Your task to perform on an android device: What is the recent news? Image 0: 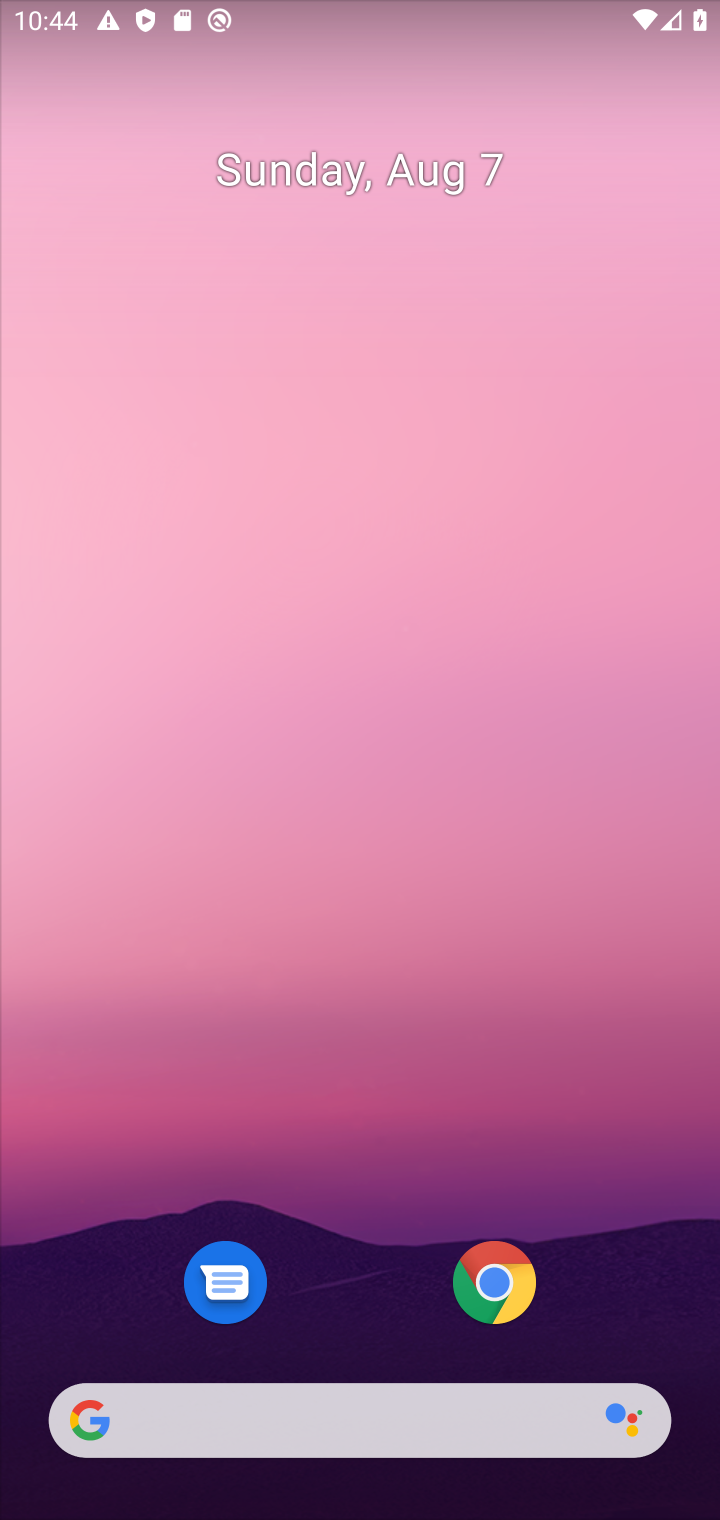
Step 0: drag from (432, 1276) to (219, 448)
Your task to perform on an android device: What is the recent news? Image 1: 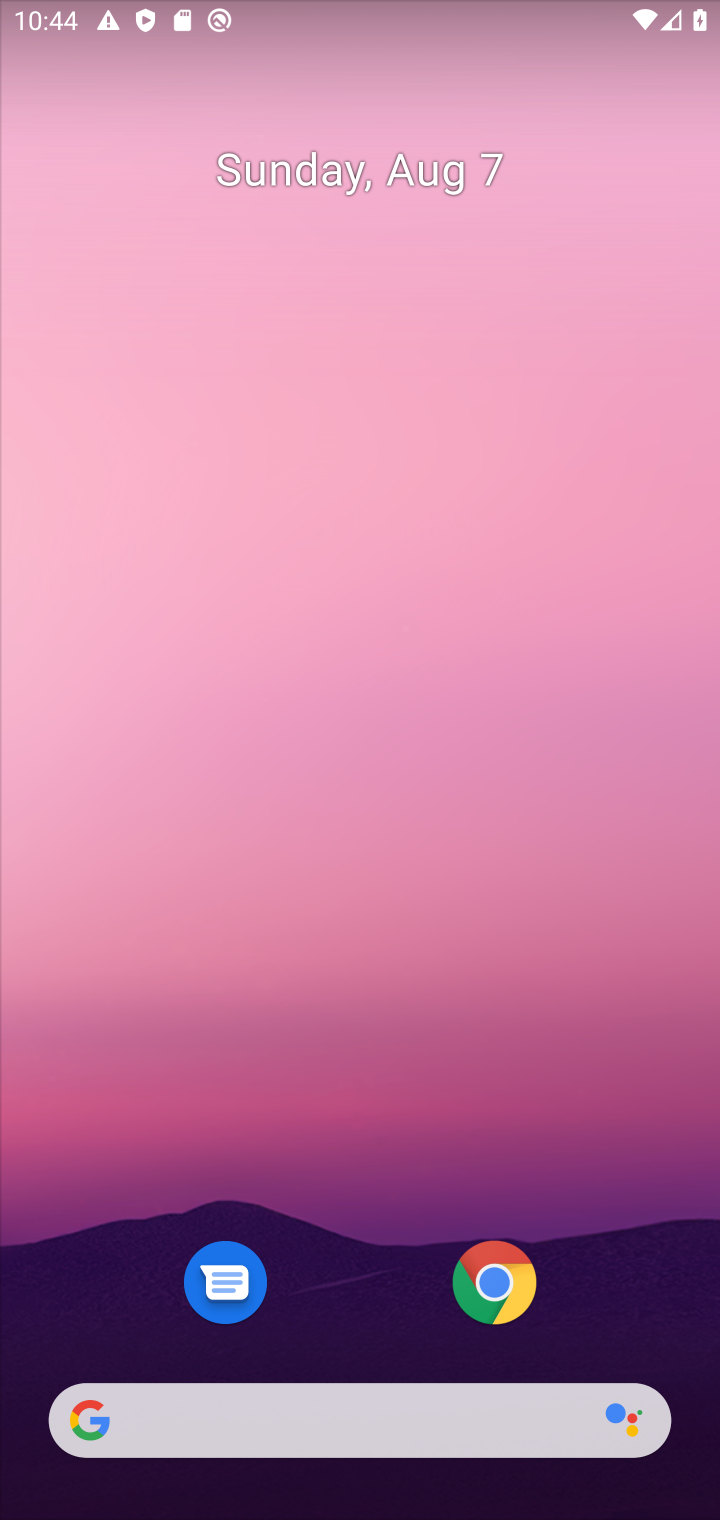
Step 1: drag from (285, 609) to (301, 878)
Your task to perform on an android device: What is the recent news? Image 2: 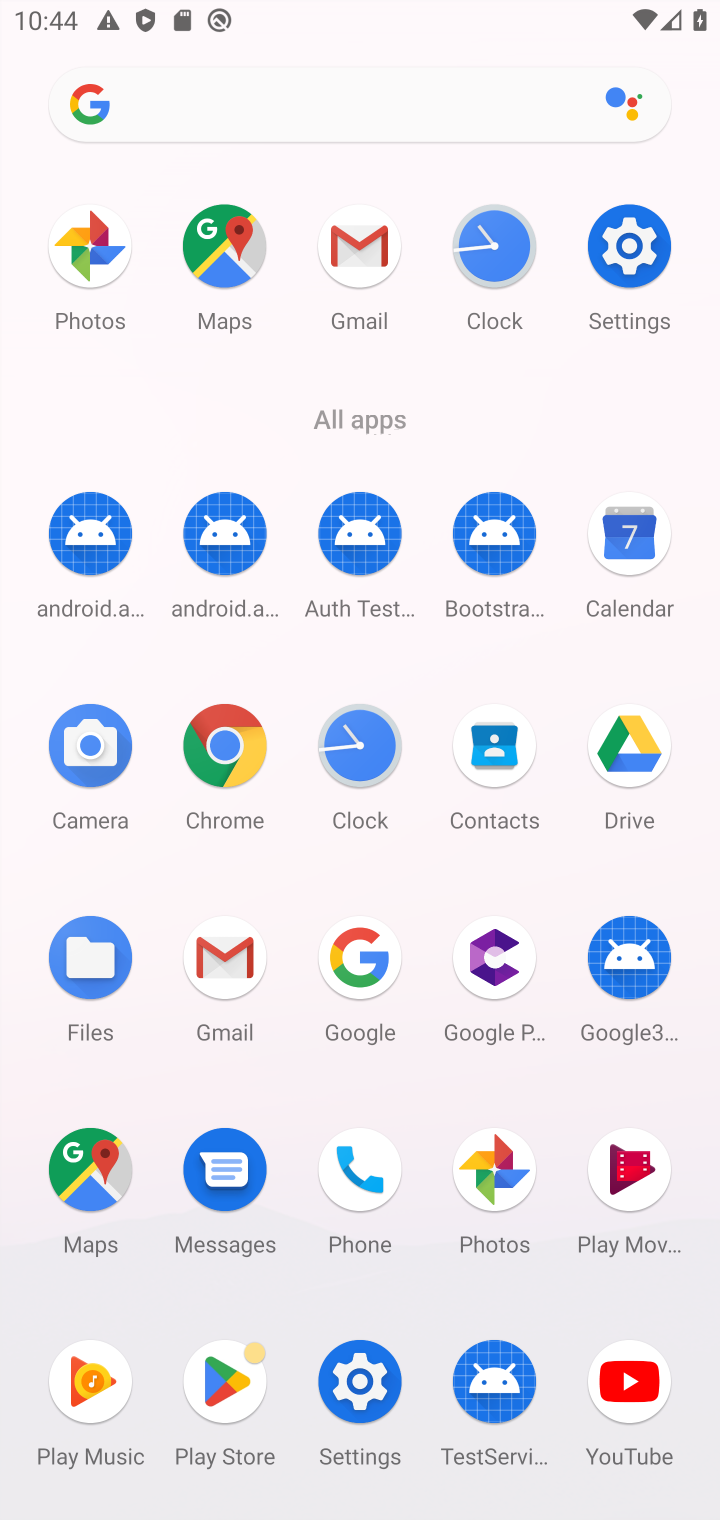
Step 2: click (244, 1090)
Your task to perform on an android device: What is the recent news? Image 3: 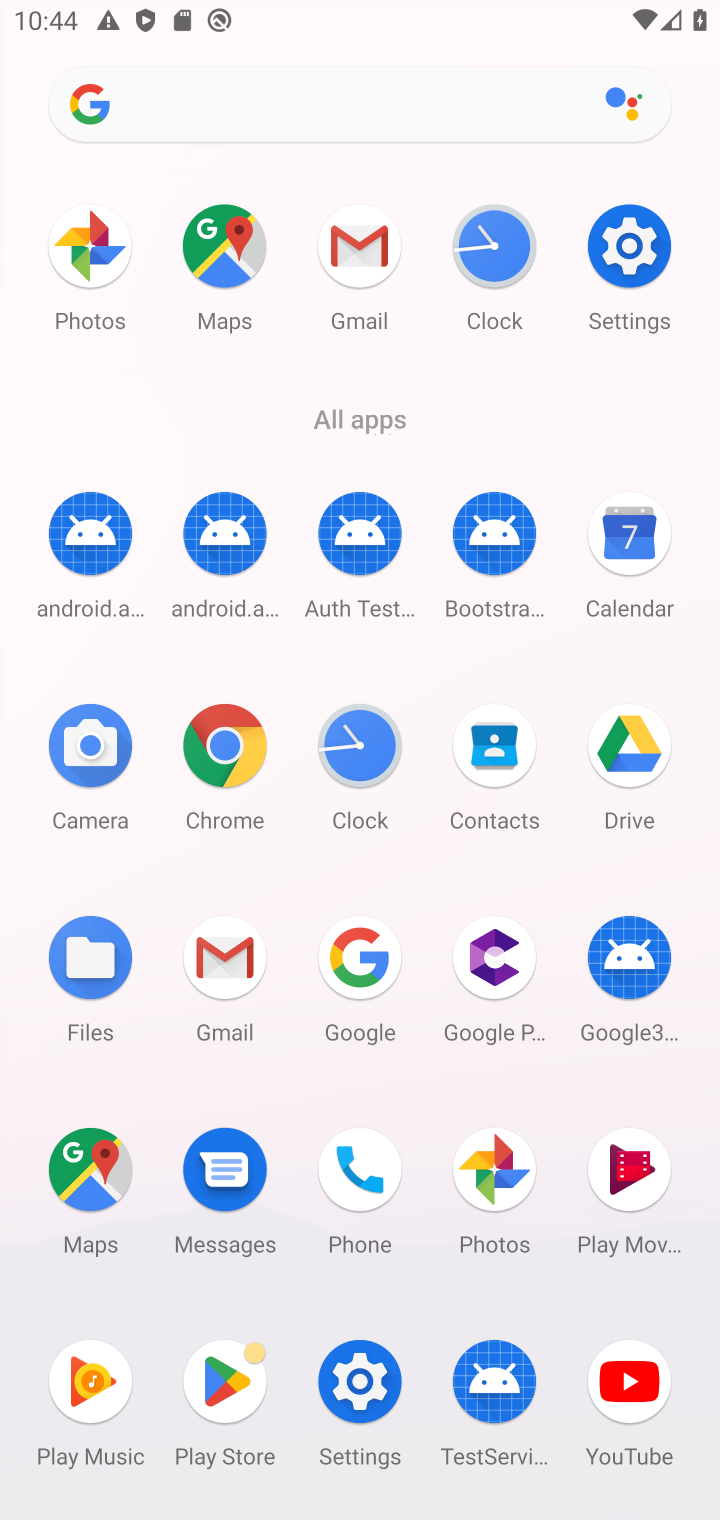
Step 3: click (243, 793)
Your task to perform on an android device: What is the recent news? Image 4: 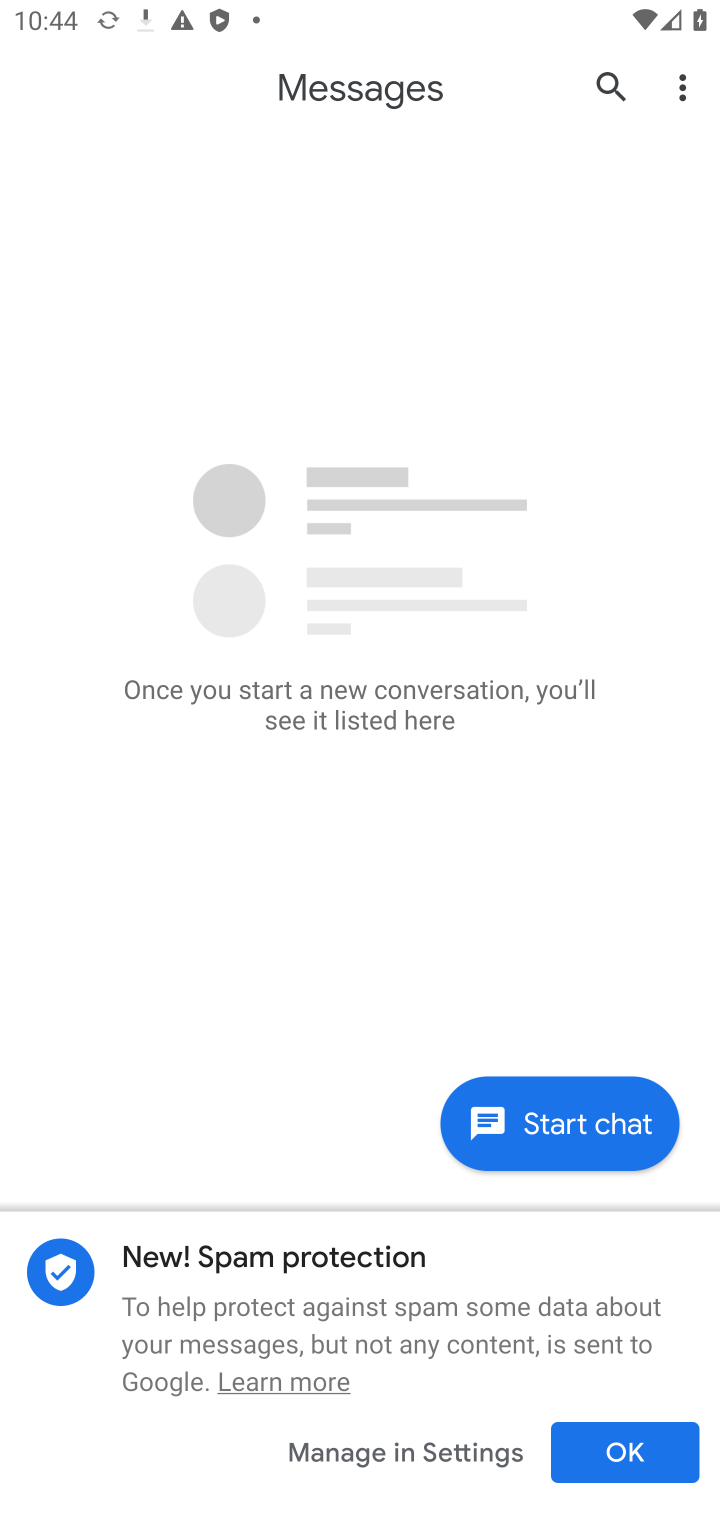
Step 4: press back button
Your task to perform on an android device: What is the recent news? Image 5: 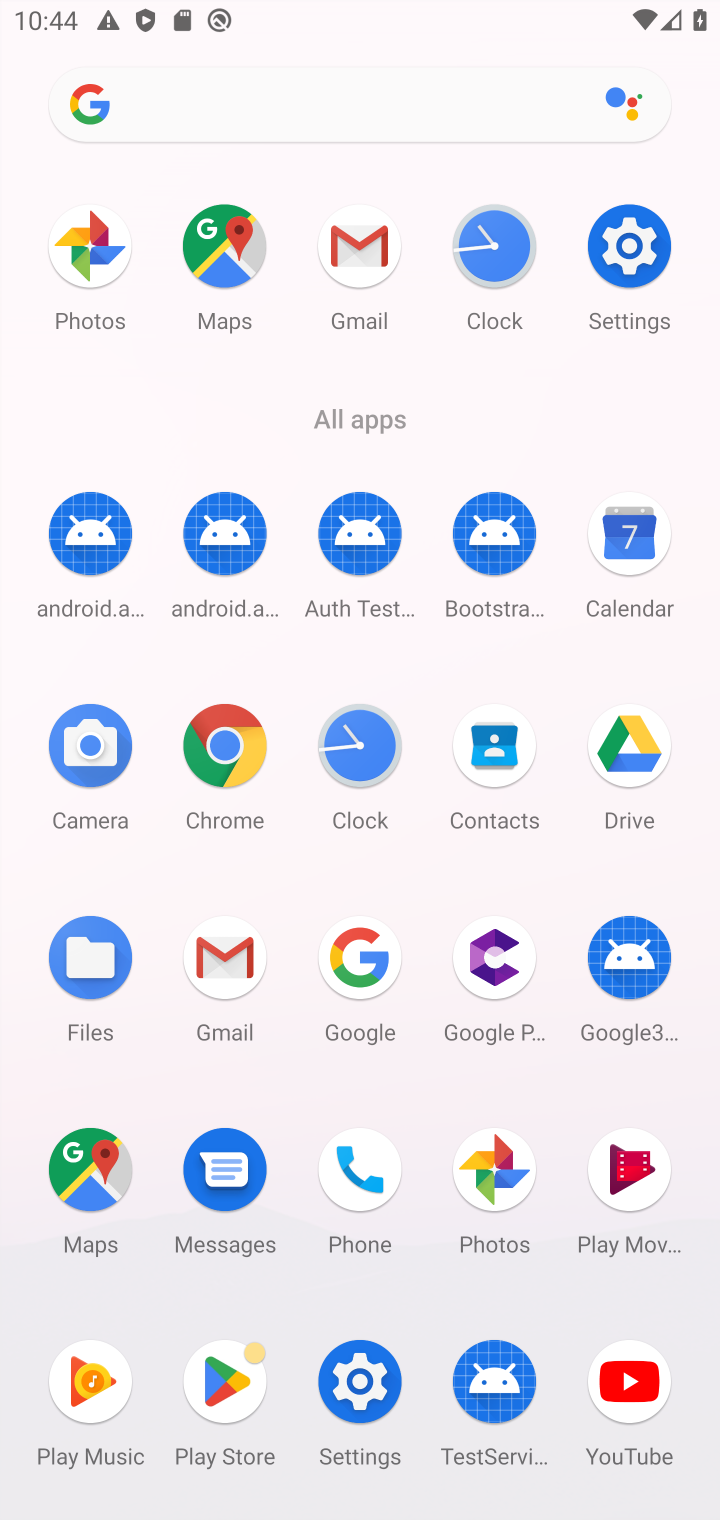
Step 5: click (213, 759)
Your task to perform on an android device: What is the recent news? Image 6: 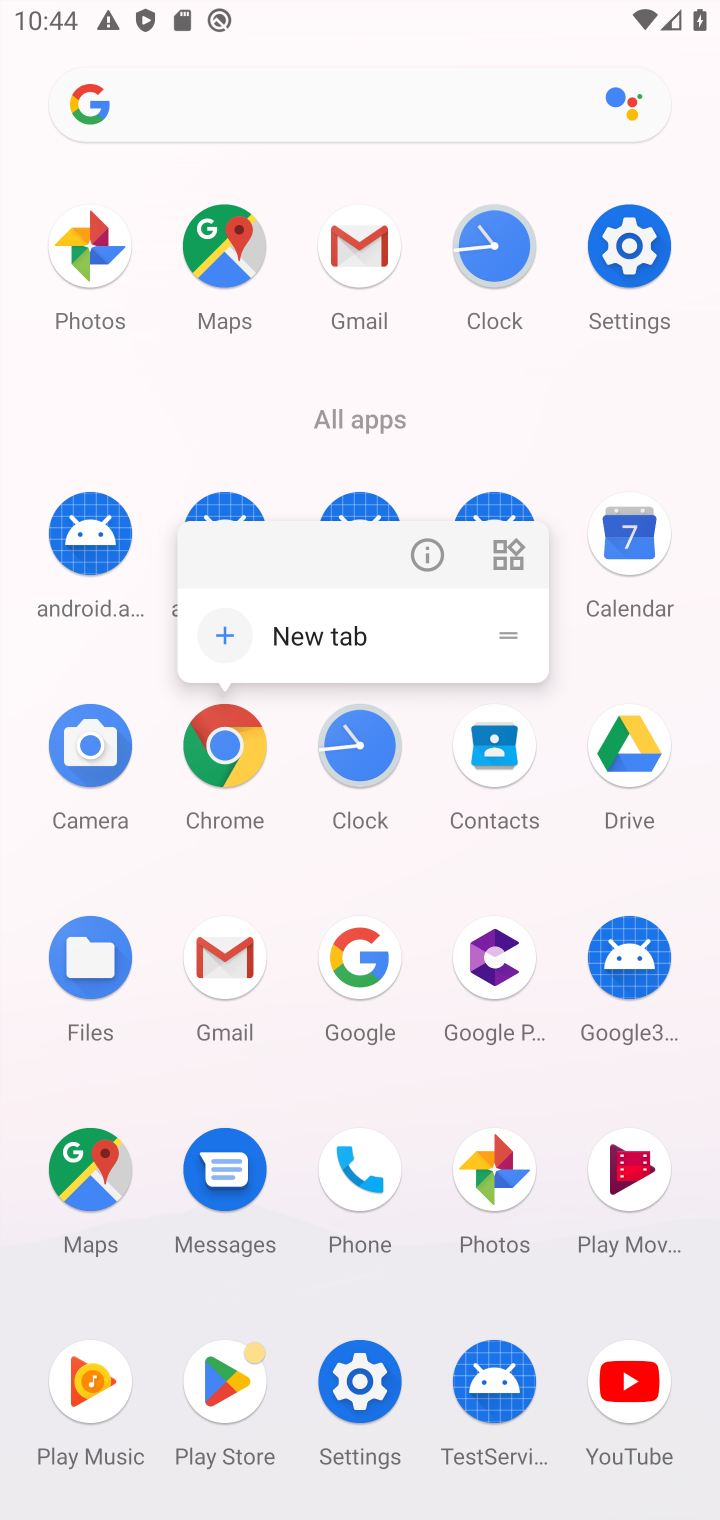
Step 6: click (227, 772)
Your task to perform on an android device: What is the recent news? Image 7: 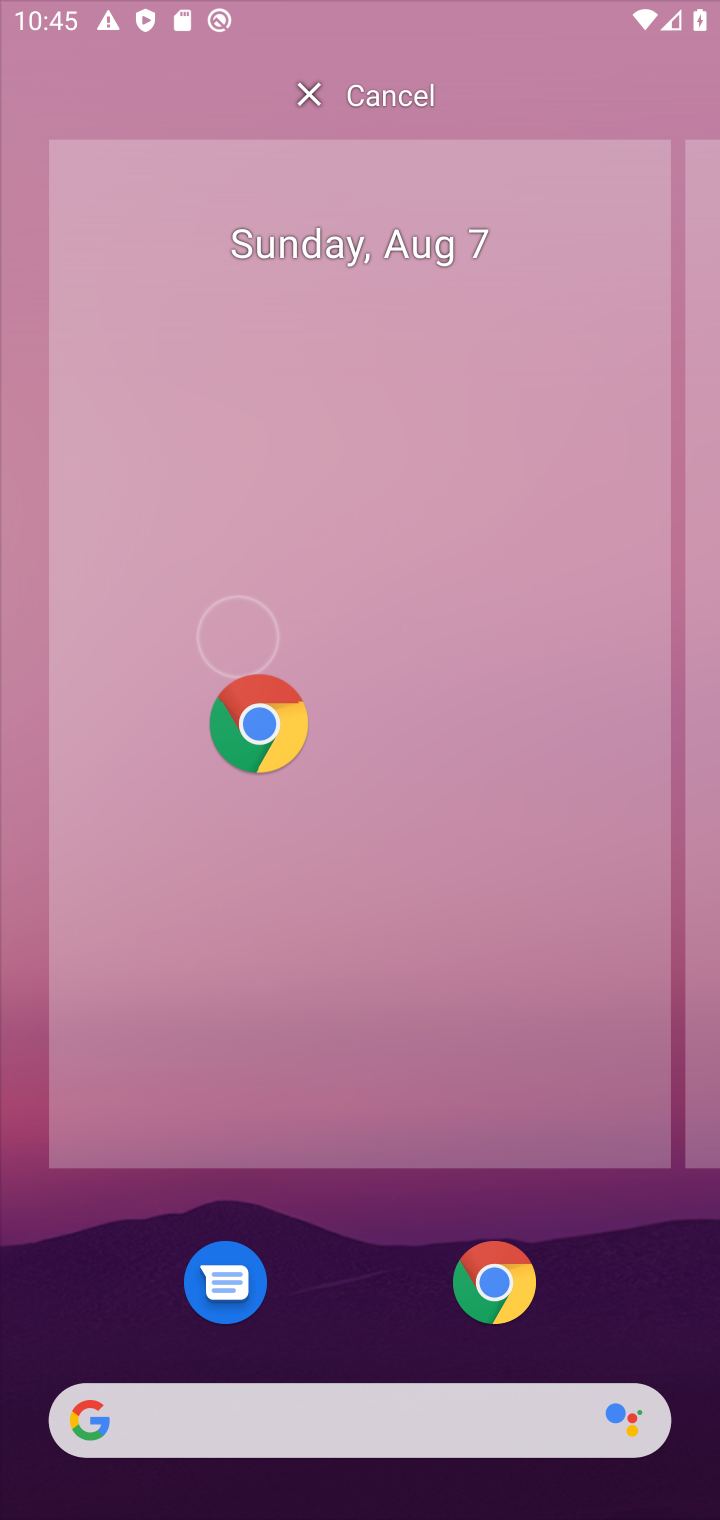
Step 7: click (267, 739)
Your task to perform on an android device: What is the recent news? Image 8: 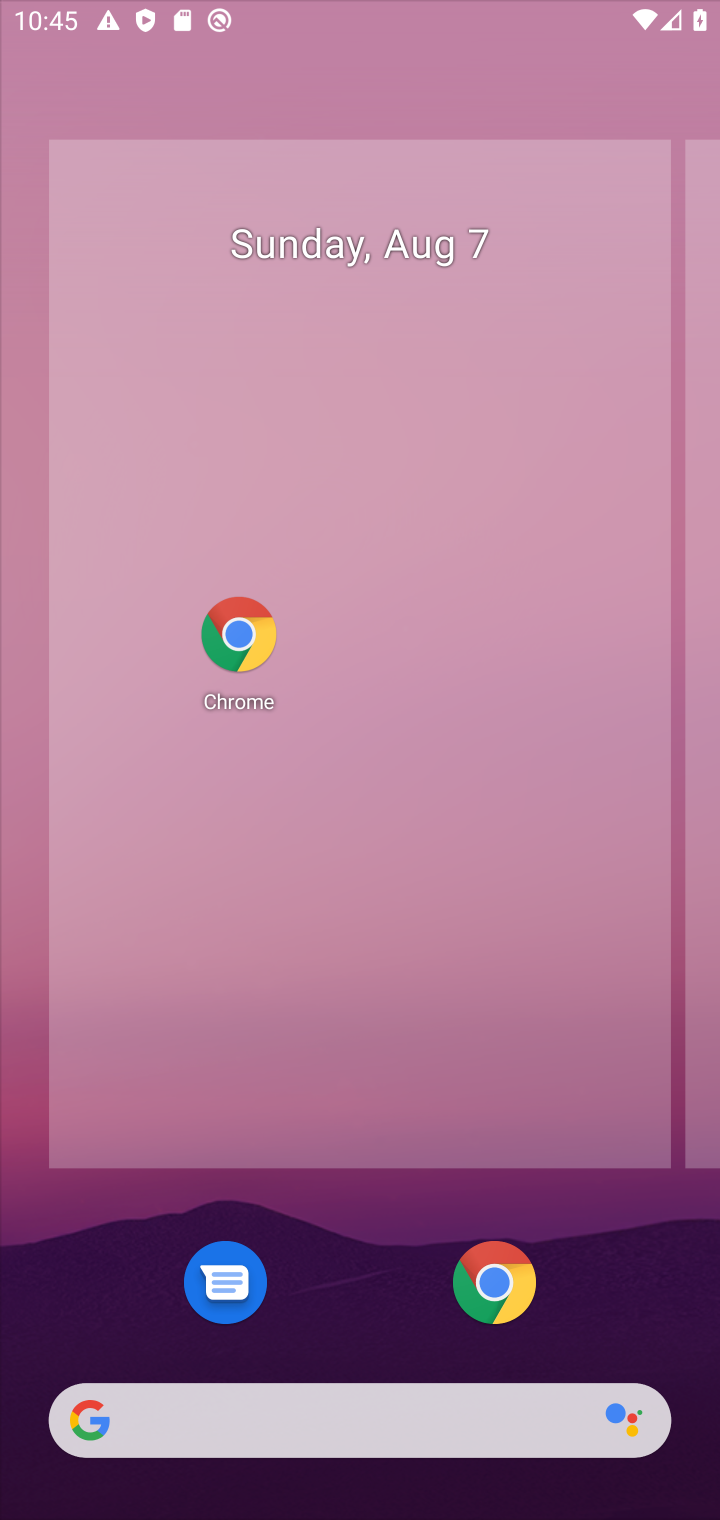
Step 8: click (267, 737)
Your task to perform on an android device: What is the recent news? Image 9: 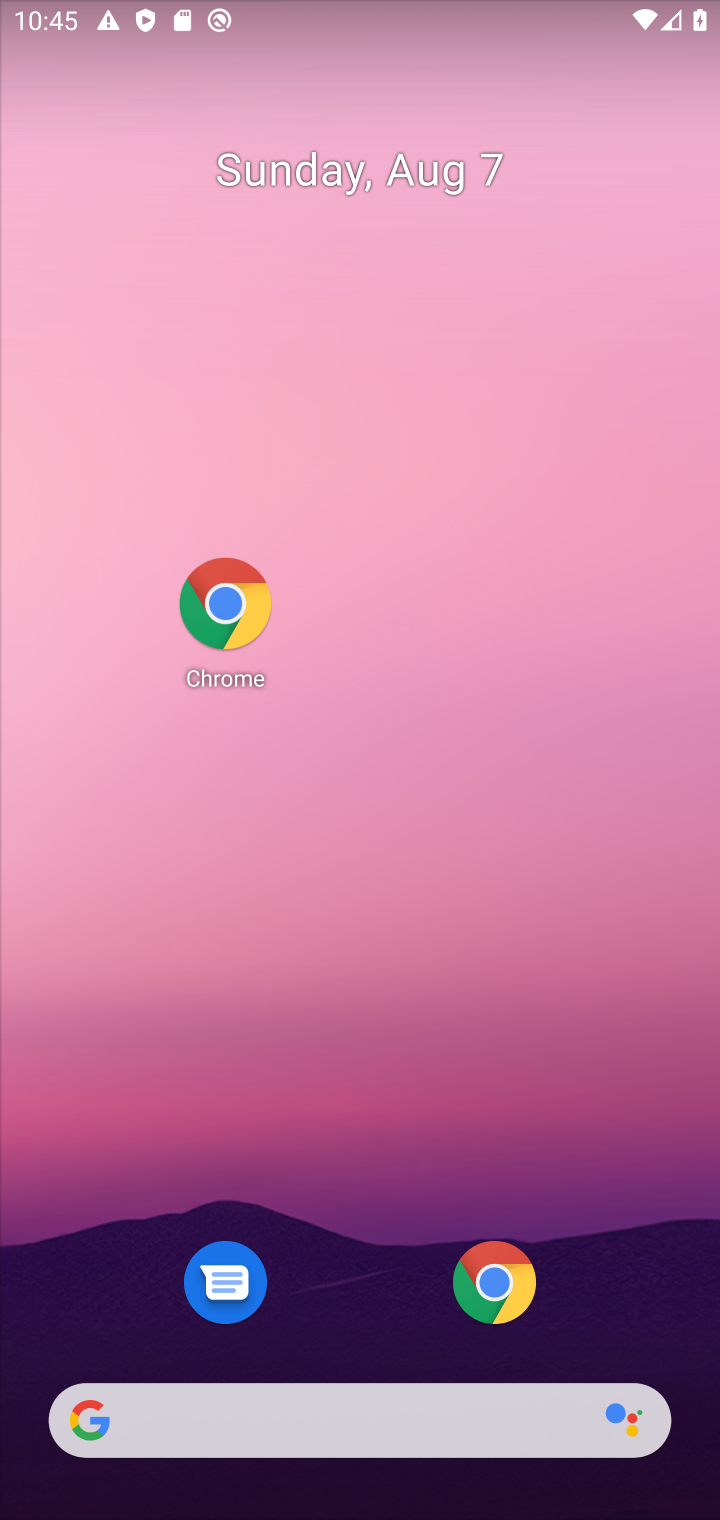
Step 9: press back button
Your task to perform on an android device: What is the recent news? Image 10: 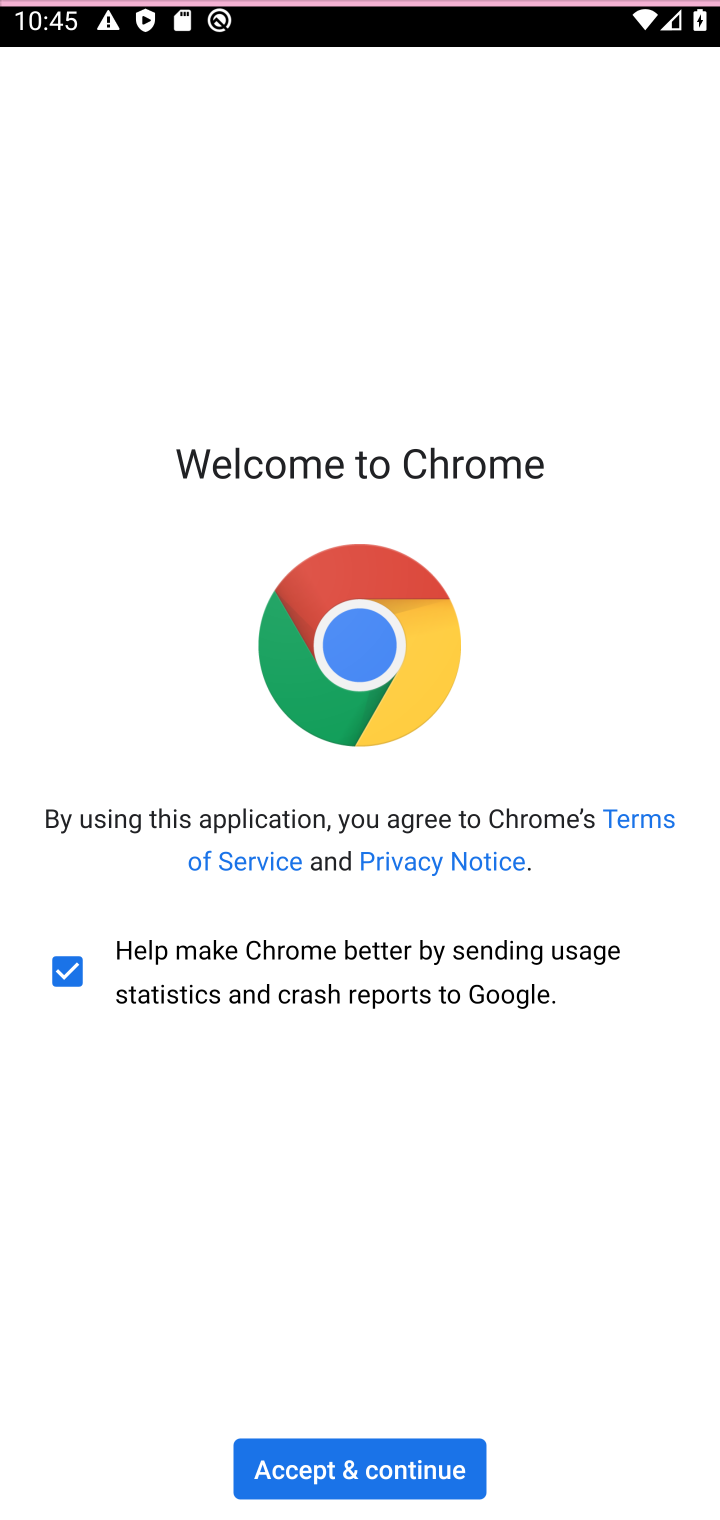
Step 10: click (353, 1455)
Your task to perform on an android device: What is the recent news? Image 11: 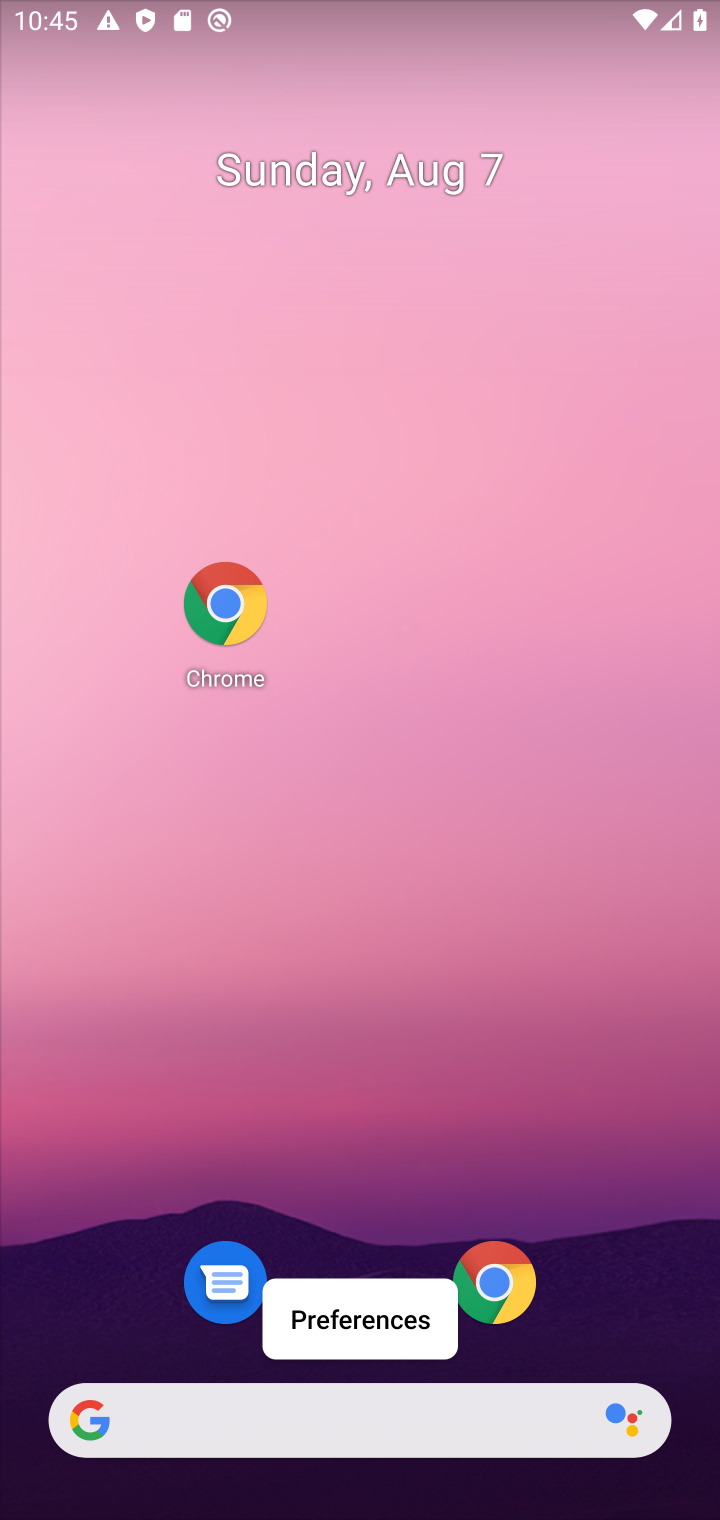
Step 11: drag from (360, 1163) to (295, 624)
Your task to perform on an android device: What is the recent news? Image 12: 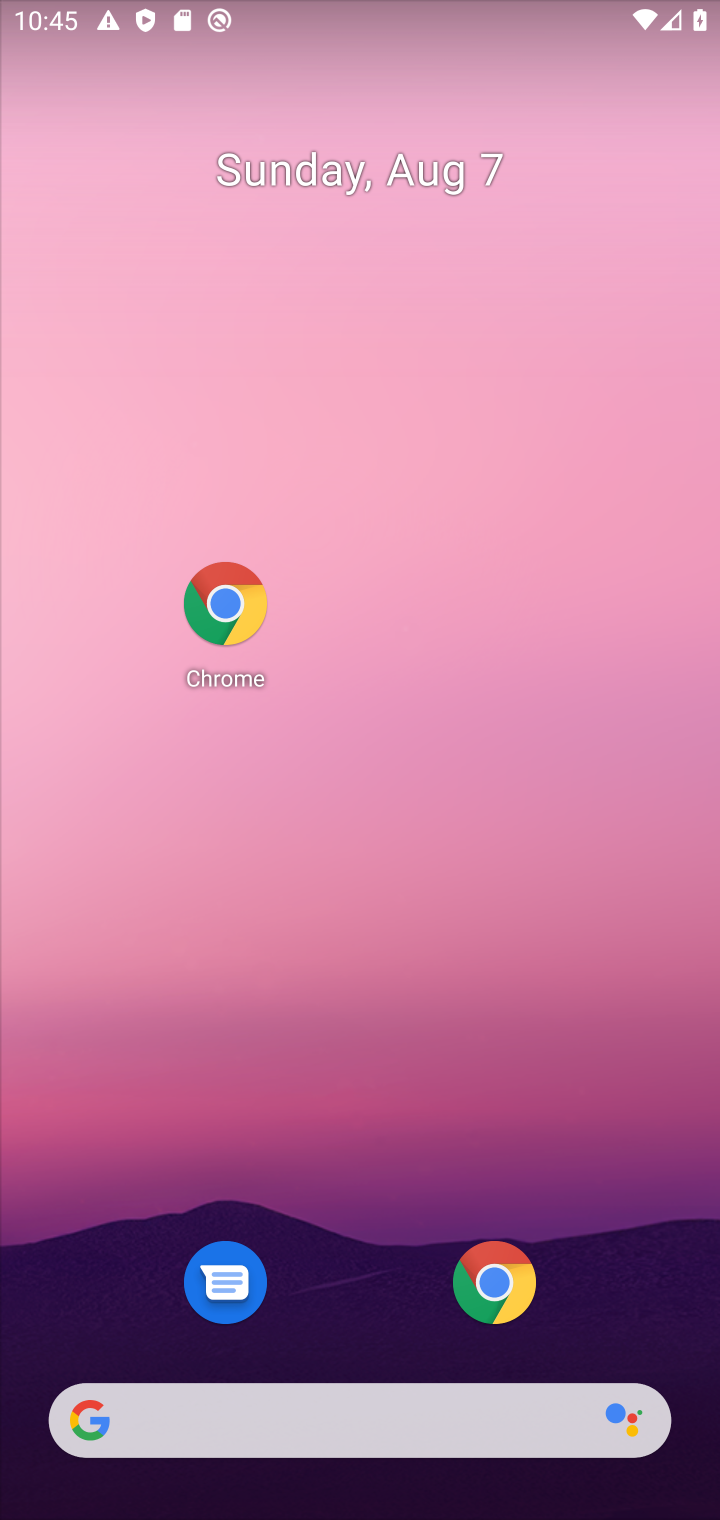
Step 12: click (241, 619)
Your task to perform on an android device: What is the recent news? Image 13: 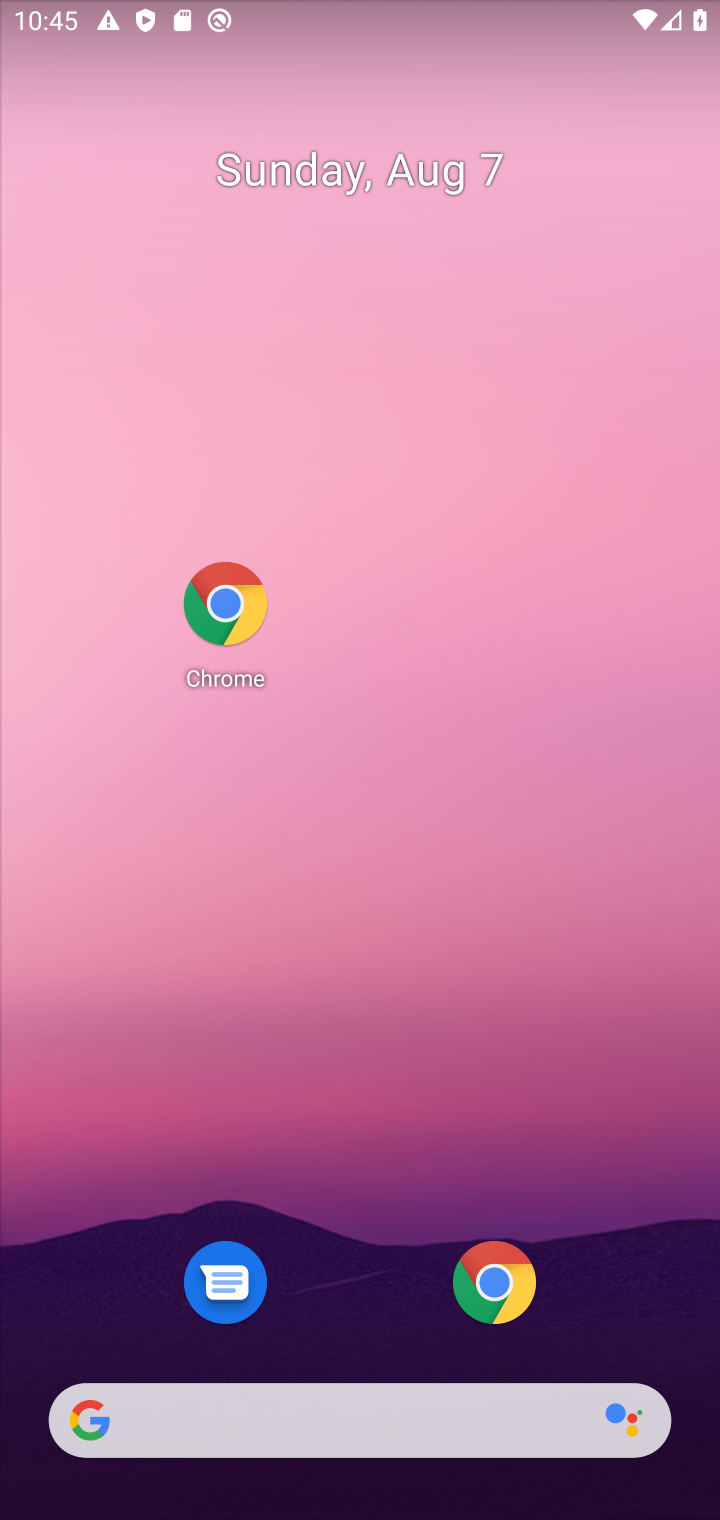
Step 13: click (237, 621)
Your task to perform on an android device: What is the recent news? Image 14: 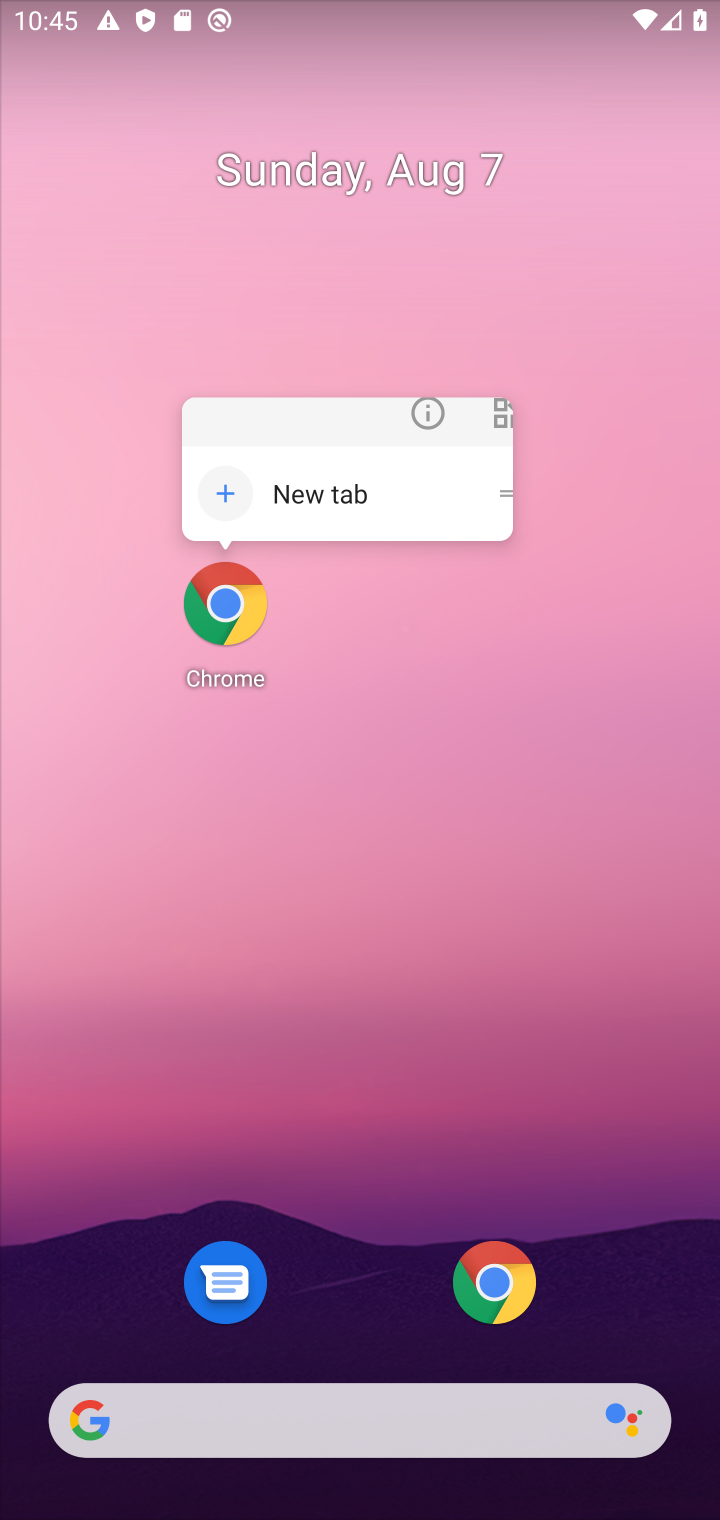
Step 14: click (239, 623)
Your task to perform on an android device: What is the recent news? Image 15: 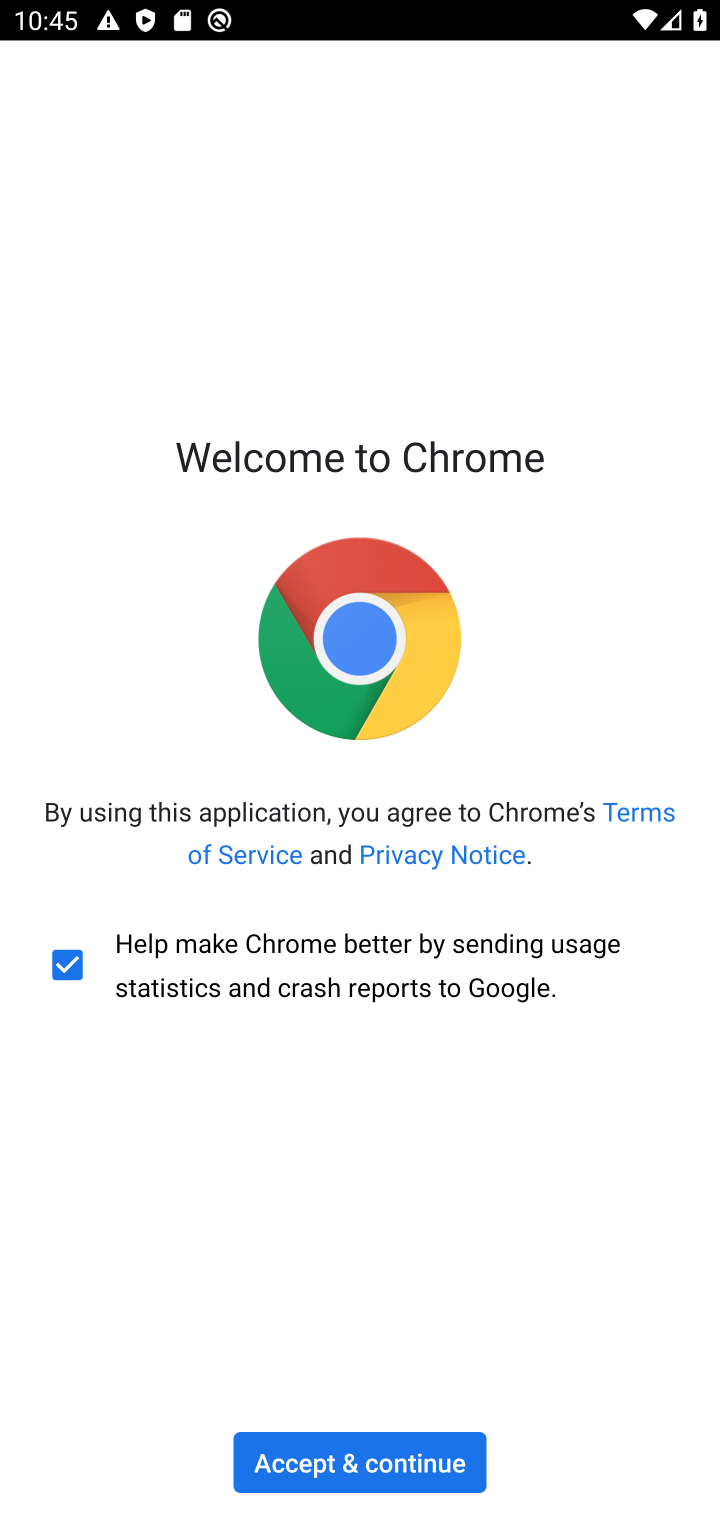
Step 15: click (355, 1464)
Your task to perform on an android device: What is the recent news? Image 16: 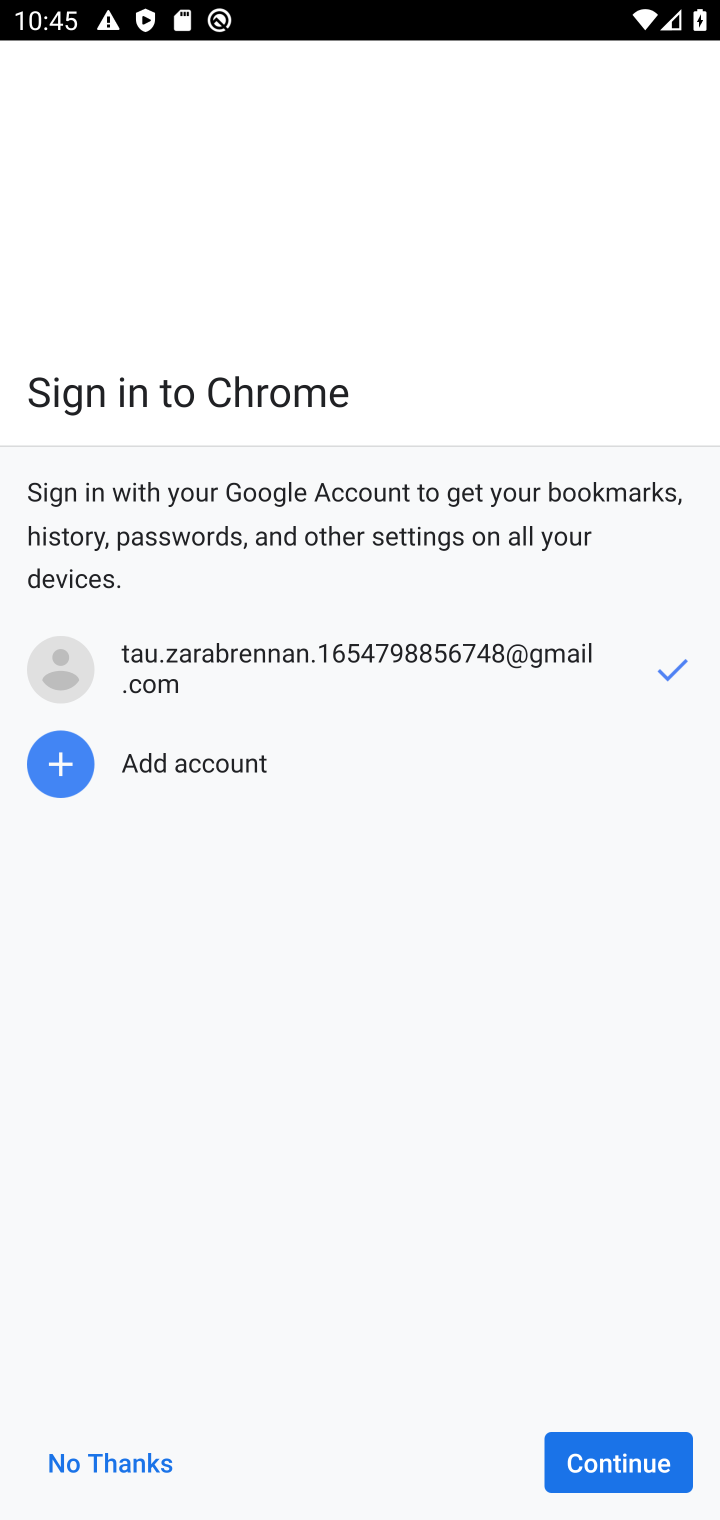
Step 16: click (157, 1458)
Your task to perform on an android device: What is the recent news? Image 17: 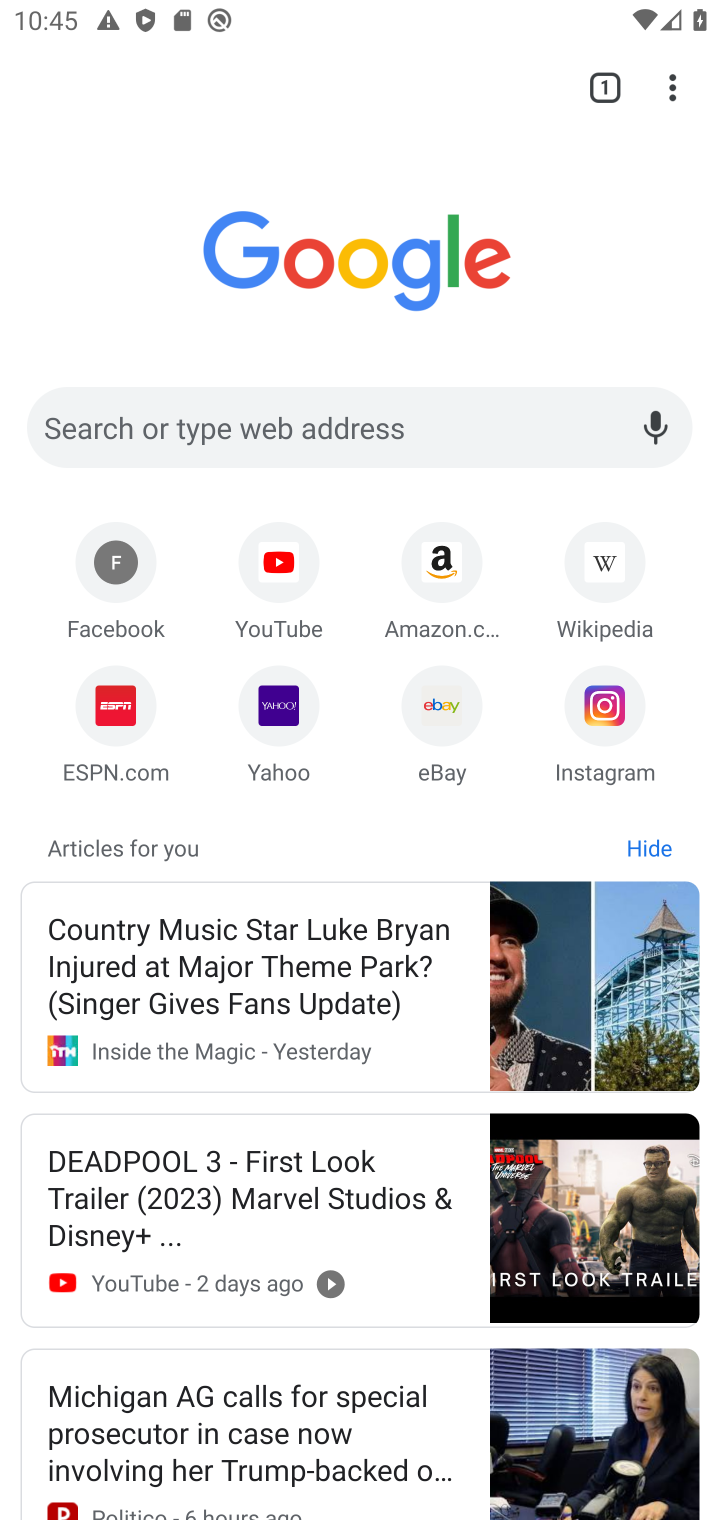
Step 17: task complete